Your task to perform on an android device: Clear the cart on amazon.com. Image 0: 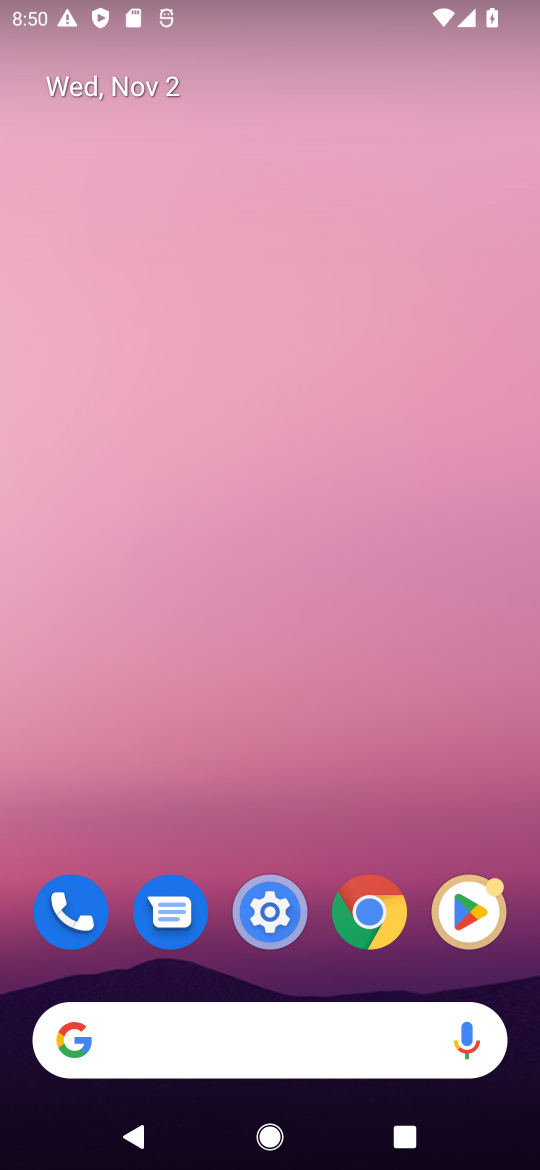
Step 0: drag from (342, 1020) to (282, 75)
Your task to perform on an android device: Clear the cart on amazon.com. Image 1: 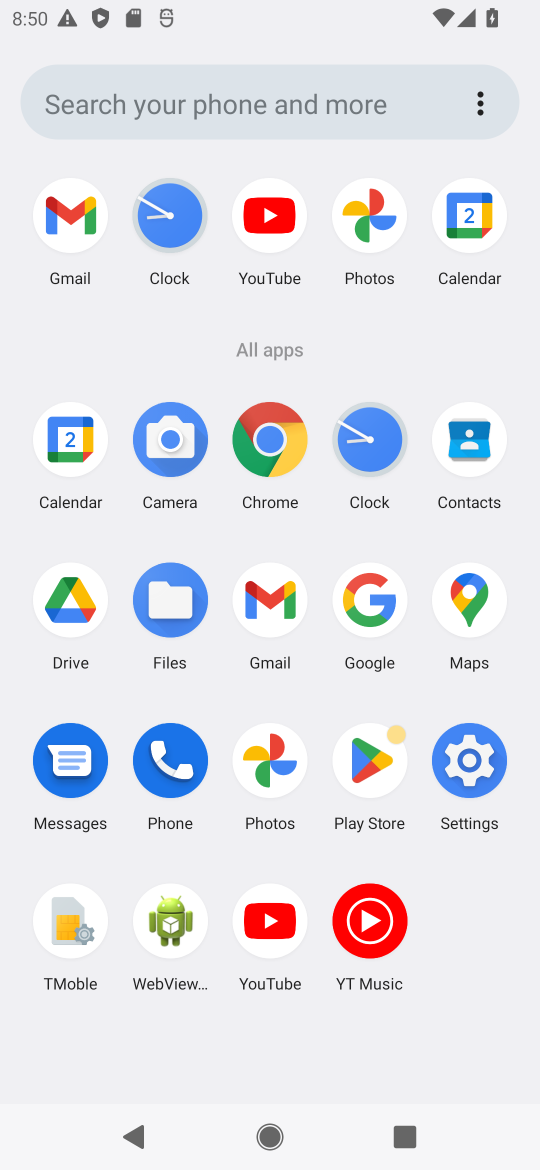
Step 1: click (273, 454)
Your task to perform on an android device: Clear the cart on amazon.com. Image 2: 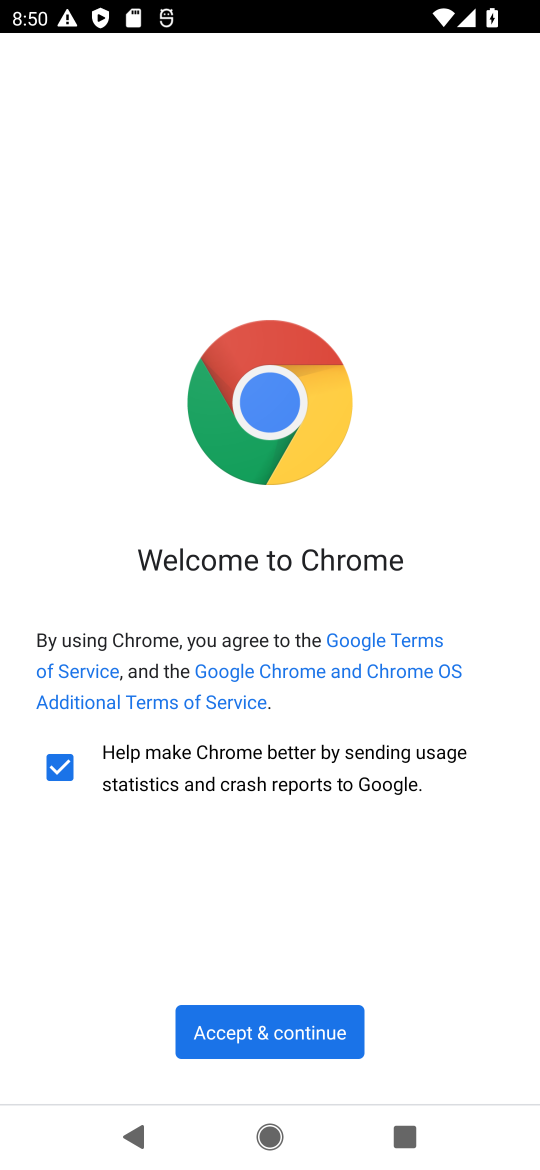
Step 2: click (276, 1032)
Your task to perform on an android device: Clear the cart on amazon.com. Image 3: 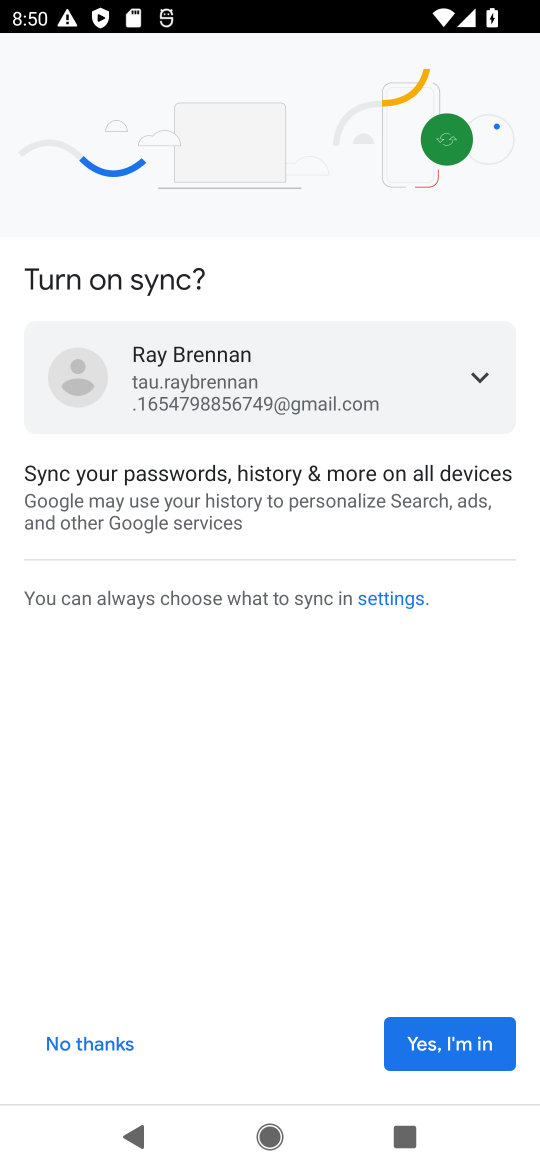
Step 3: click (470, 1045)
Your task to perform on an android device: Clear the cart on amazon.com. Image 4: 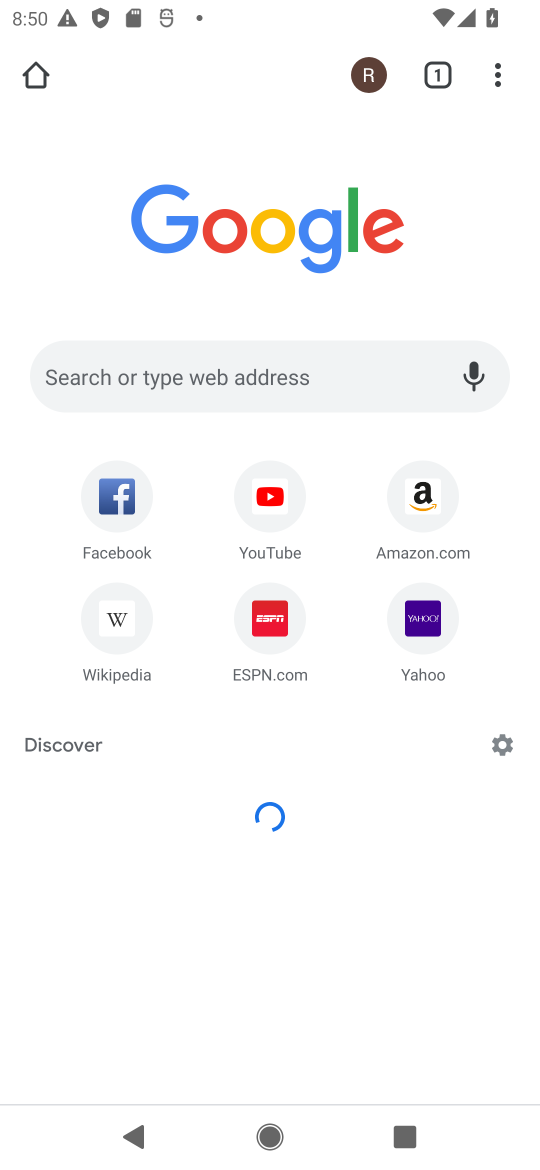
Step 4: click (164, 363)
Your task to perform on an android device: Clear the cart on amazon.com. Image 5: 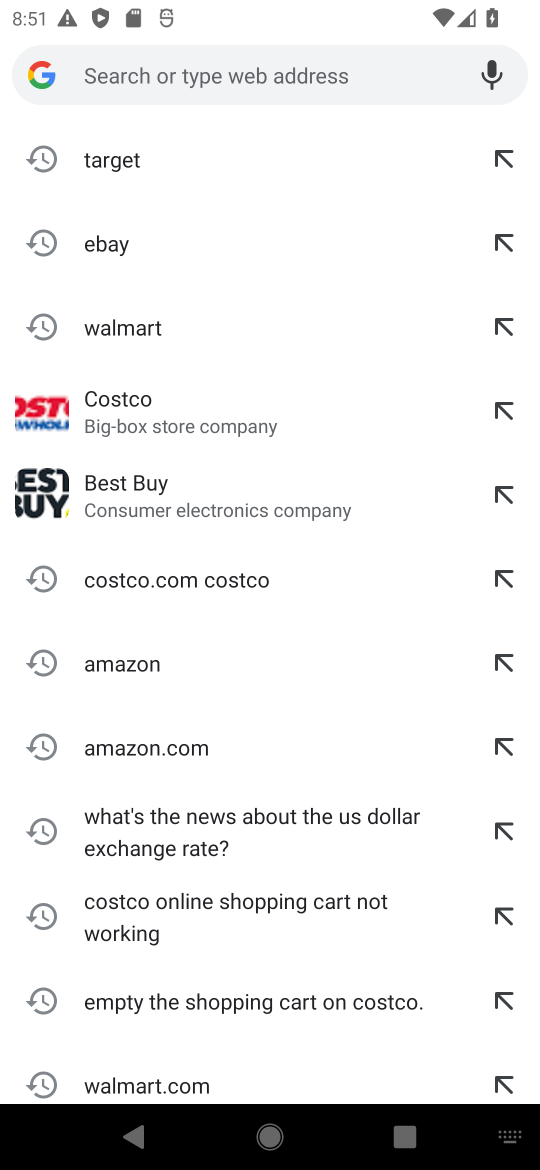
Step 5: type "amazon.com."
Your task to perform on an android device: Clear the cart on amazon.com. Image 6: 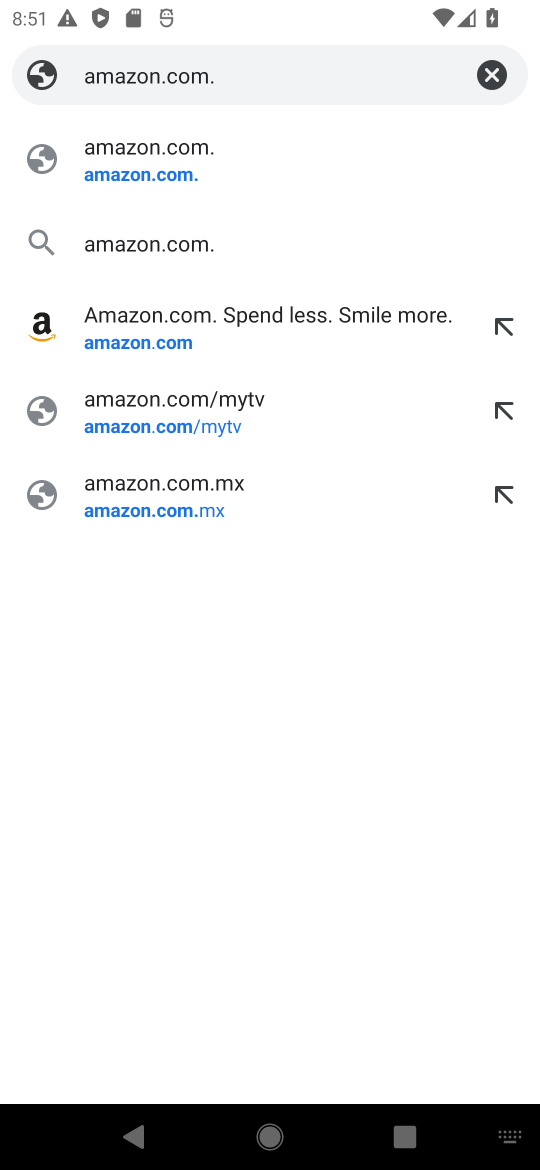
Step 6: click (116, 176)
Your task to perform on an android device: Clear the cart on amazon.com. Image 7: 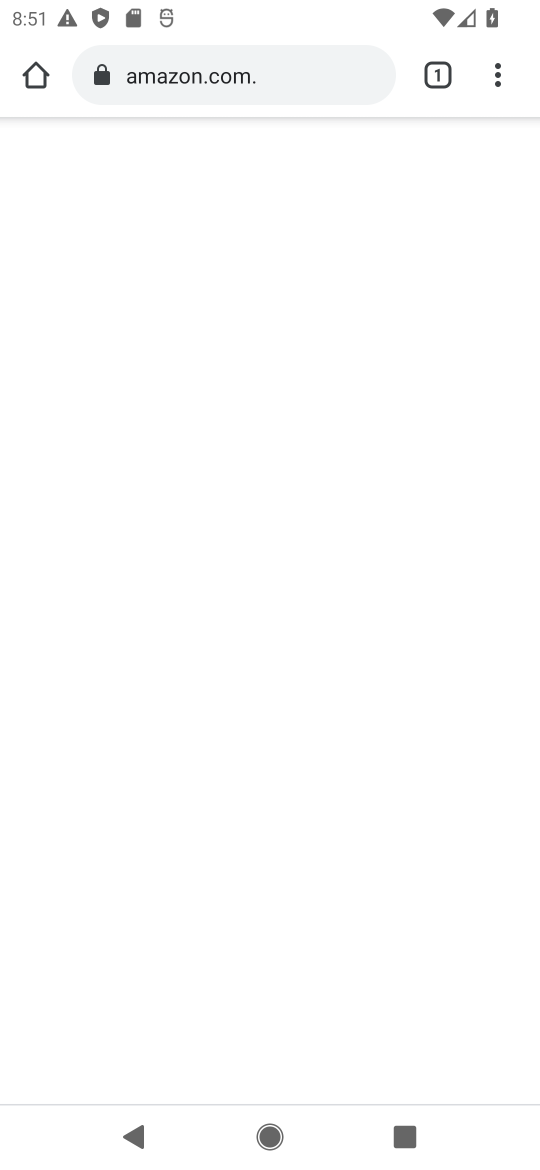
Step 7: task complete